Your task to perform on an android device: turn vacation reply on in the gmail app Image 0: 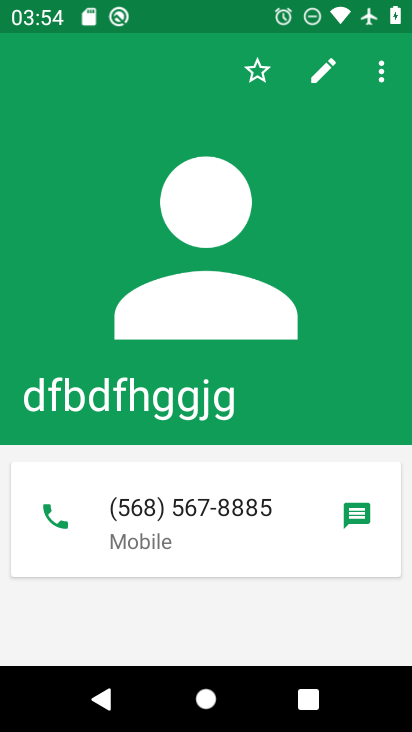
Step 0: press home button
Your task to perform on an android device: turn vacation reply on in the gmail app Image 1: 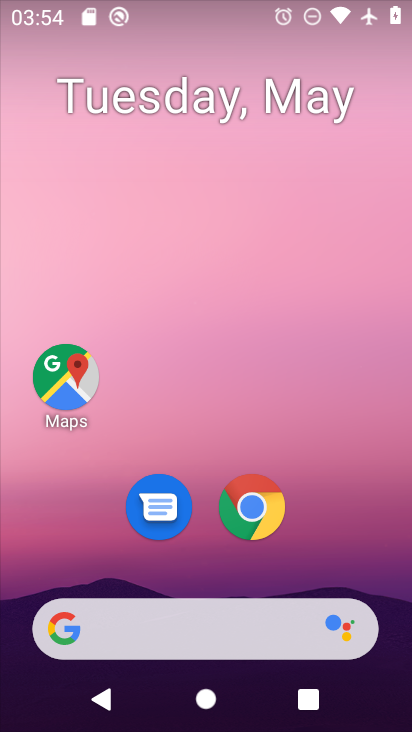
Step 1: click (200, 159)
Your task to perform on an android device: turn vacation reply on in the gmail app Image 2: 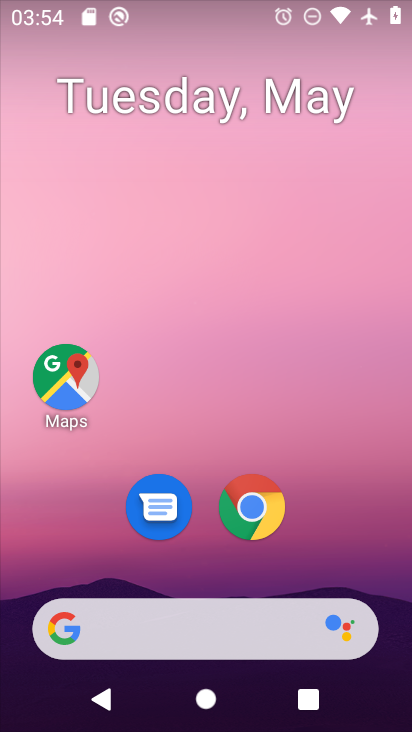
Step 2: drag from (210, 570) to (219, 153)
Your task to perform on an android device: turn vacation reply on in the gmail app Image 3: 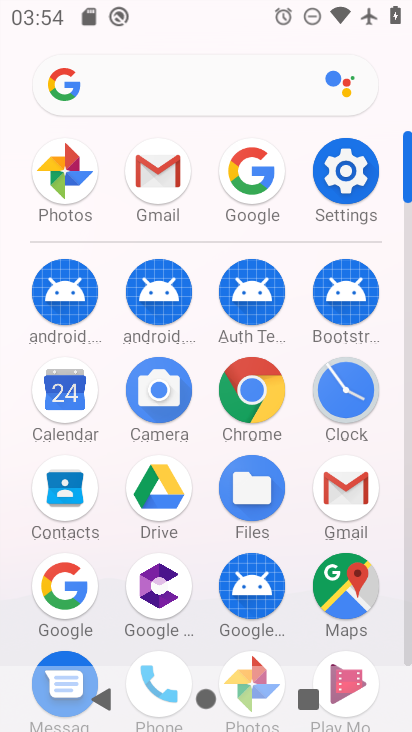
Step 3: click (164, 196)
Your task to perform on an android device: turn vacation reply on in the gmail app Image 4: 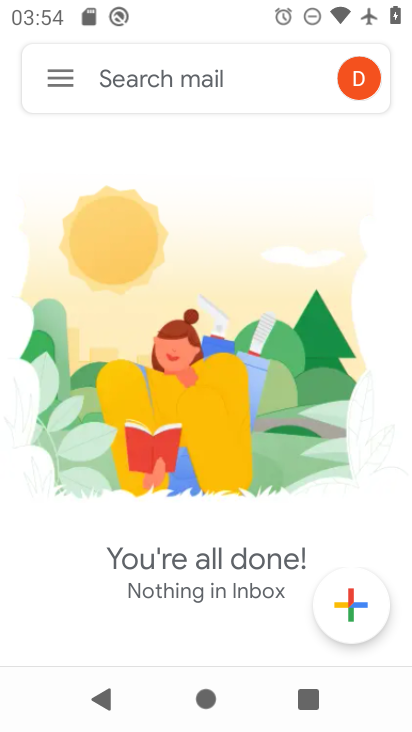
Step 4: click (54, 85)
Your task to perform on an android device: turn vacation reply on in the gmail app Image 5: 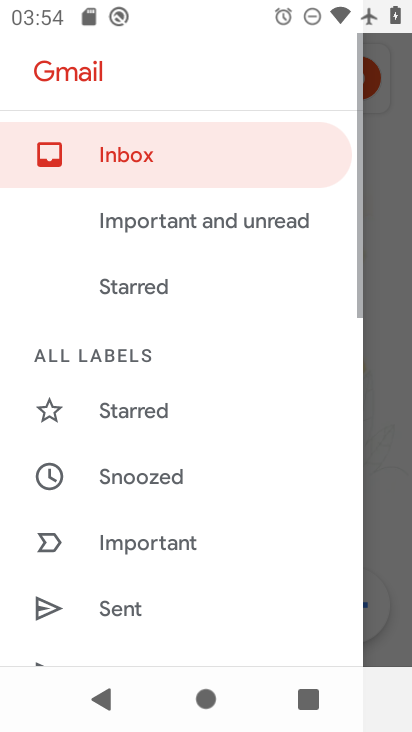
Step 5: drag from (170, 616) to (116, 339)
Your task to perform on an android device: turn vacation reply on in the gmail app Image 6: 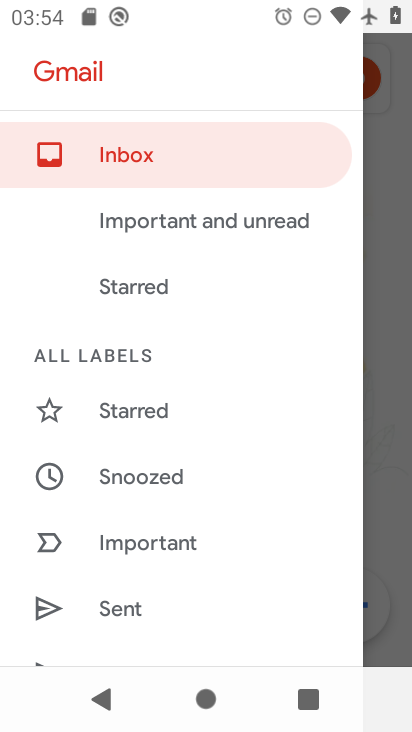
Step 6: drag from (176, 566) to (182, 177)
Your task to perform on an android device: turn vacation reply on in the gmail app Image 7: 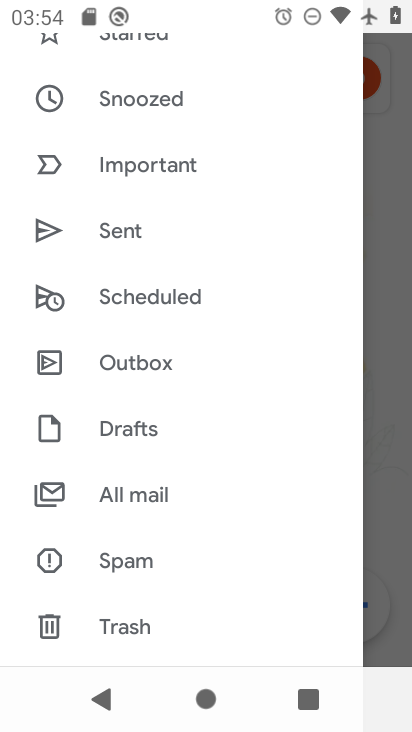
Step 7: drag from (201, 556) to (174, 318)
Your task to perform on an android device: turn vacation reply on in the gmail app Image 8: 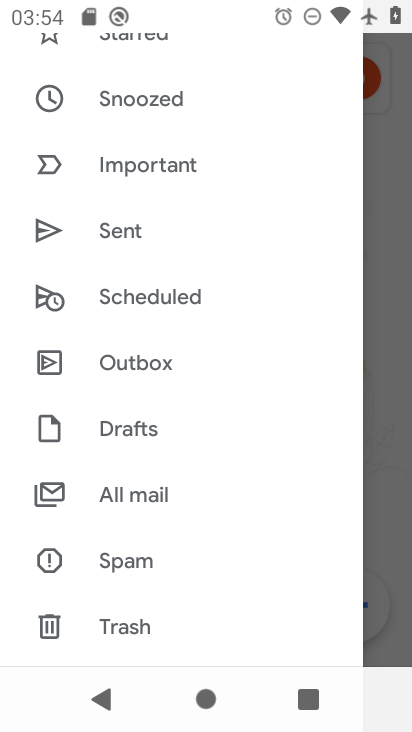
Step 8: drag from (202, 543) to (168, 191)
Your task to perform on an android device: turn vacation reply on in the gmail app Image 9: 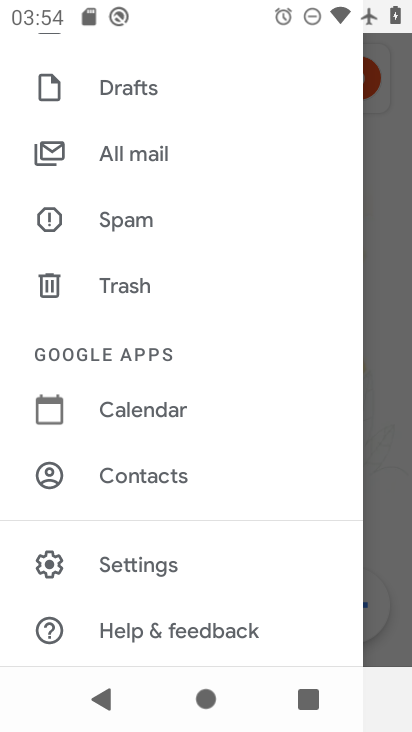
Step 9: click (157, 558)
Your task to perform on an android device: turn vacation reply on in the gmail app Image 10: 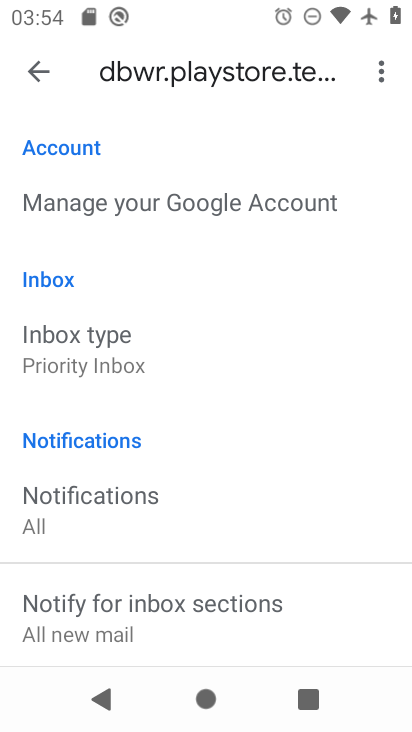
Step 10: drag from (183, 582) to (194, 332)
Your task to perform on an android device: turn vacation reply on in the gmail app Image 11: 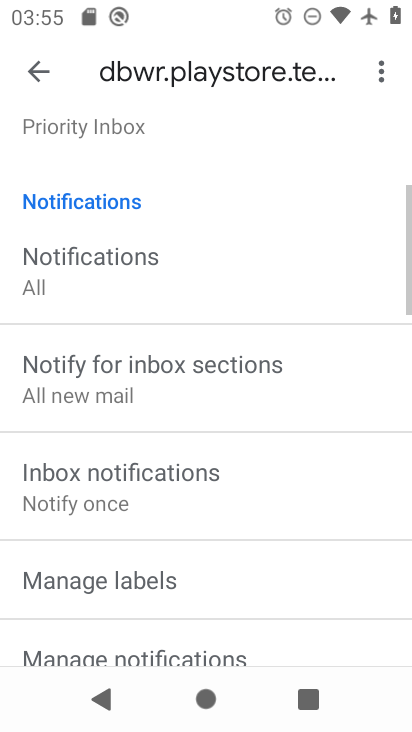
Step 11: drag from (194, 558) to (196, 355)
Your task to perform on an android device: turn vacation reply on in the gmail app Image 12: 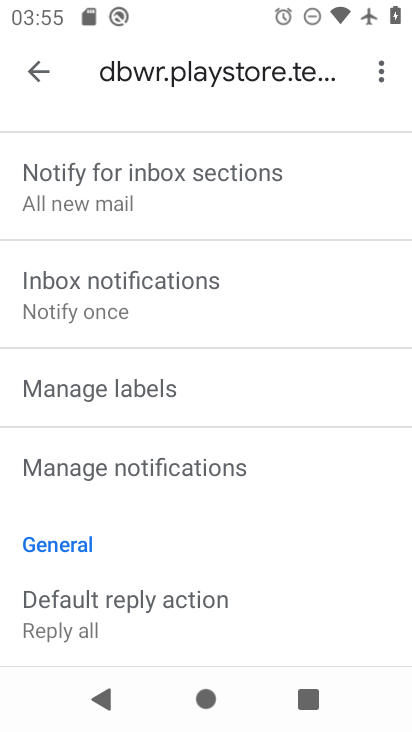
Step 12: drag from (196, 536) to (161, 151)
Your task to perform on an android device: turn vacation reply on in the gmail app Image 13: 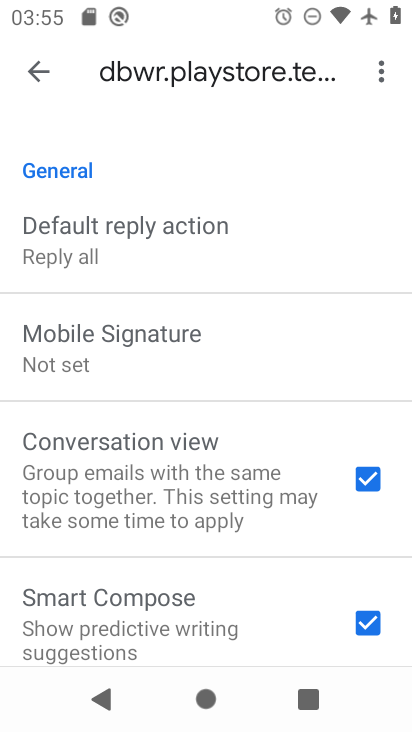
Step 13: drag from (314, 584) to (266, 334)
Your task to perform on an android device: turn vacation reply on in the gmail app Image 14: 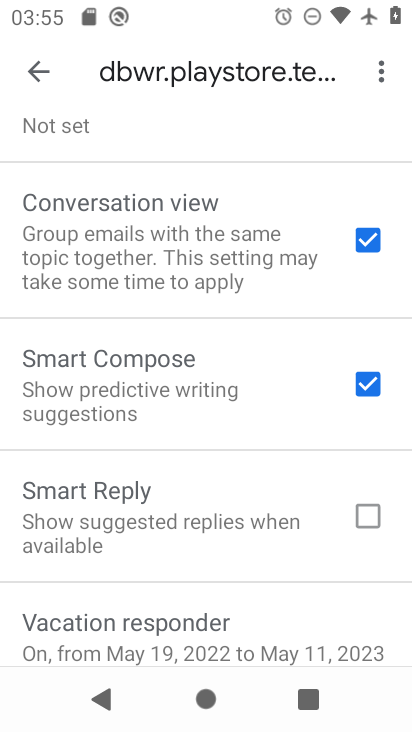
Step 14: click (355, 617)
Your task to perform on an android device: turn vacation reply on in the gmail app Image 15: 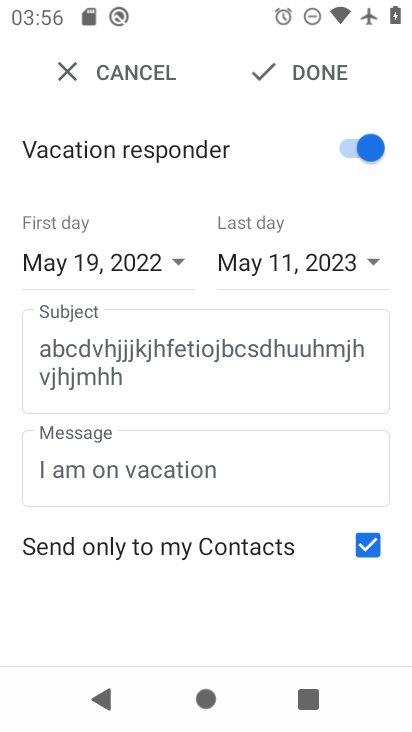
Step 15: task complete